Your task to perform on an android device: Open settings Image 0: 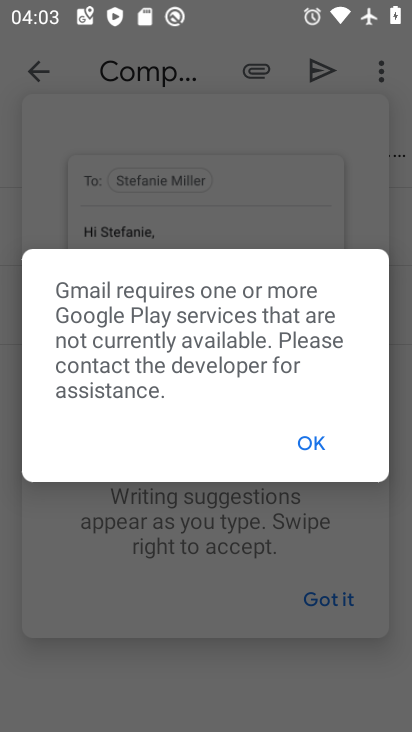
Step 0: press home button
Your task to perform on an android device: Open settings Image 1: 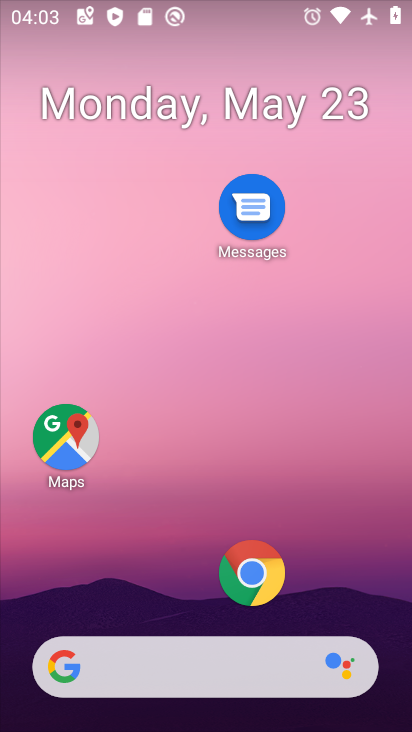
Step 1: drag from (219, 683) to (238, 122)
Your task to perform on an android device: Open settings Image 2: 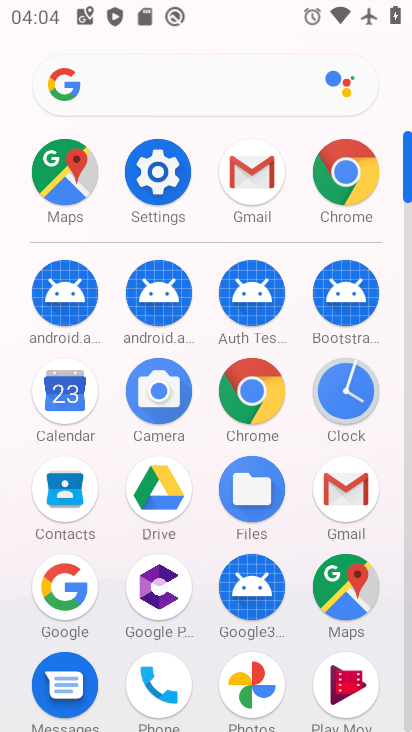
Step 2: click (170, 167)
Your task to perform on an android device: Open settings Image 3: 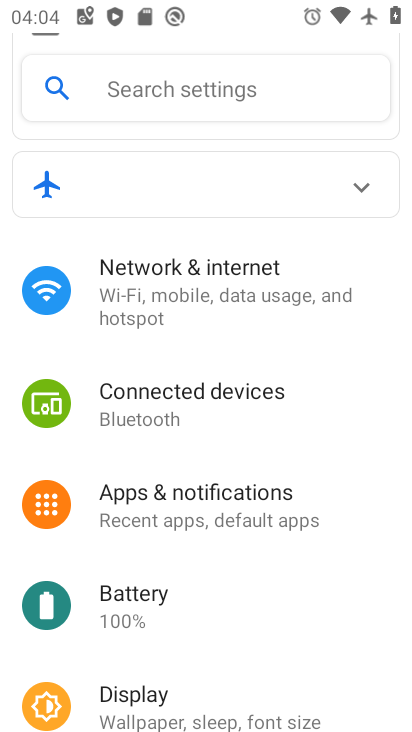
Step 3: task complete